Your task to perform on an android device: delete browsing data in the chrome app Image 0: 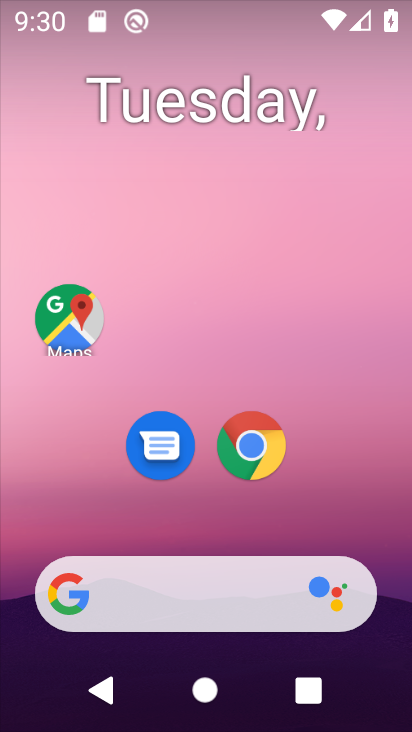
Step 0: click (251, 436)
Your task to perform on an android device: delete browsing data in the chrome app Image 1: 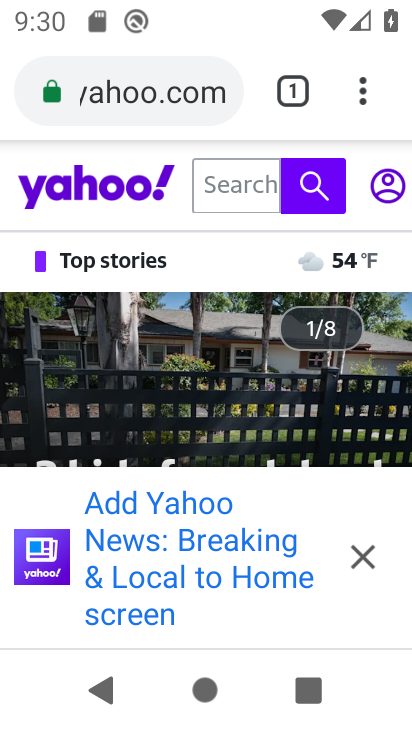
Step 1: click (353, 85)
Your task to perform on an android device: delete browsing data in the chrome app Image 2: 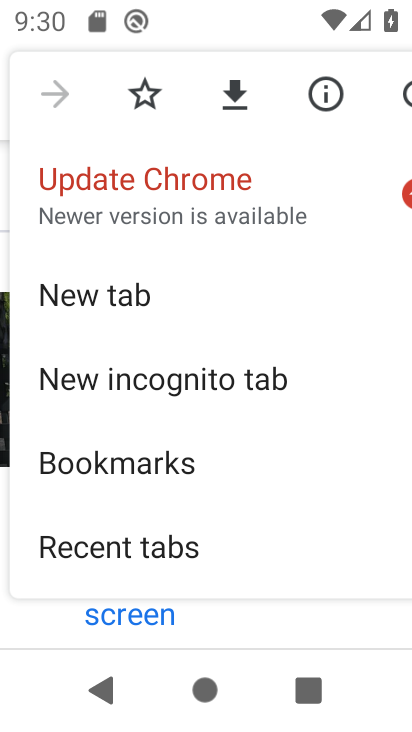
Step 2: drag from (251, 352) to (325, 63)
Your task to perform on an android device: delete browsing data in the chrome app Image 3: 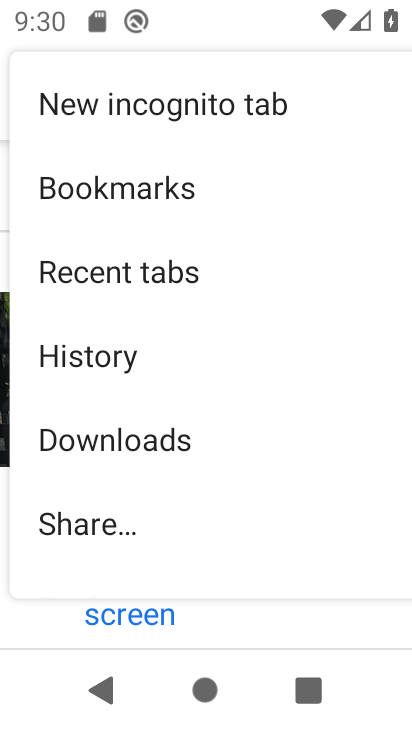
Step 3: drag from (174, 495) to (177, 399)
Your task to perform on an android device: delete browsing data in the chrome app Image 4: 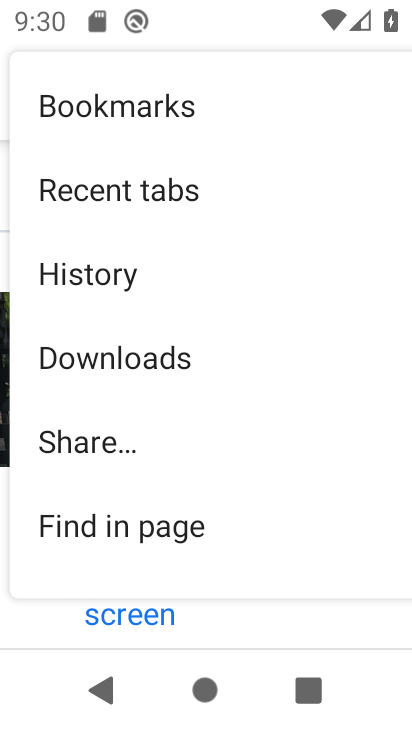
Step 4: click (120, 284)
Your task to perform on an android device: delete browsing data in the chrome app Image 5: 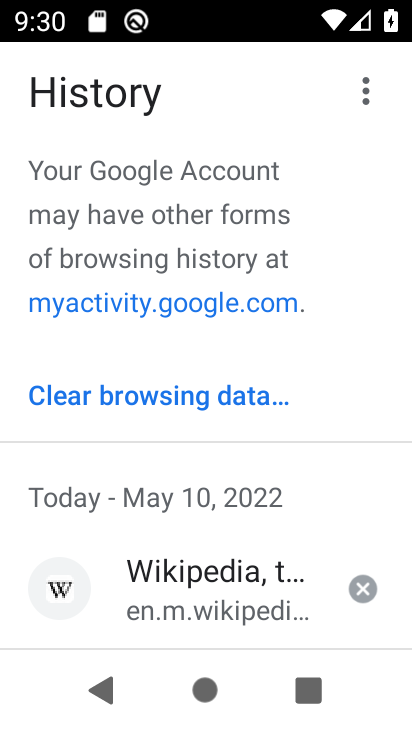
Step 5: click (153, 390)
Your task to perform on an android device: delete browsing data in the chrome app Image 6: 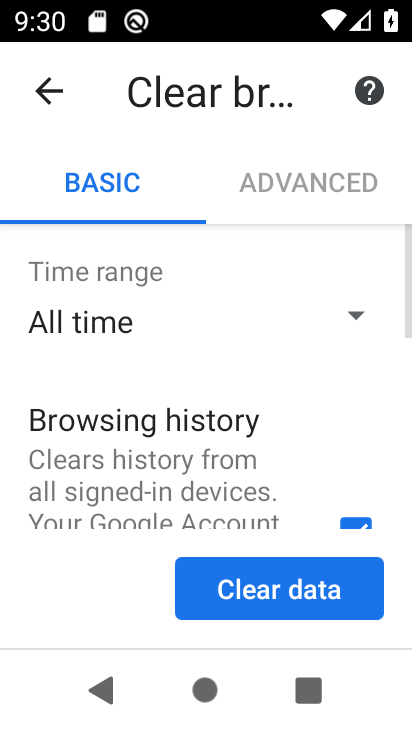
Step 6: click (251, 580)
Your task to perform on an android device: delete browsing data in the chrome app Image 7: 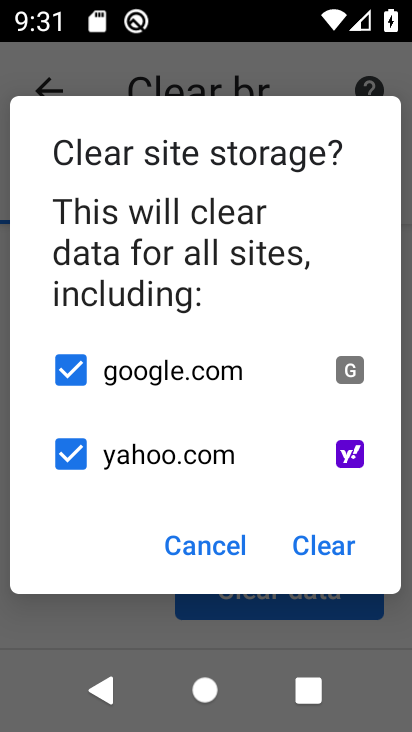
Step 7: click (317, 544)
Your task to perform on an android device: delete browsing data in the chrome app Image 8: 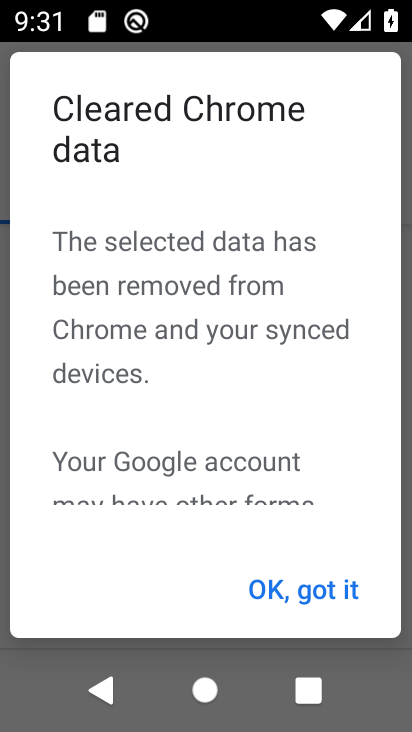
Step 8: click (293, 596)
Your task to perform on an android device: delete browsing data in the chrome app Image 9: 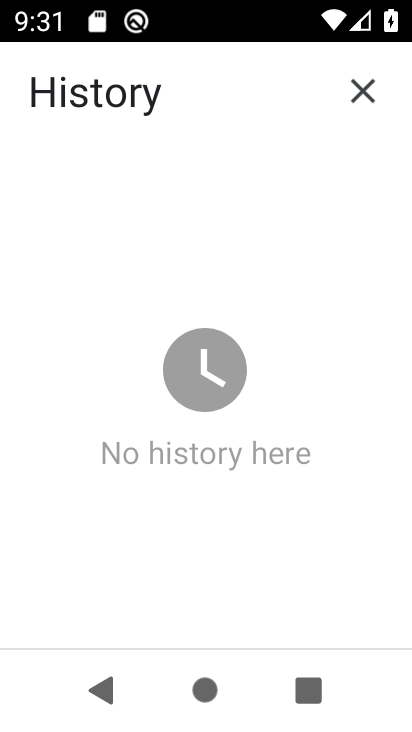
Step 9: task complete